Your task to perform on an android device: Open Chrome and go to settings Image 0: 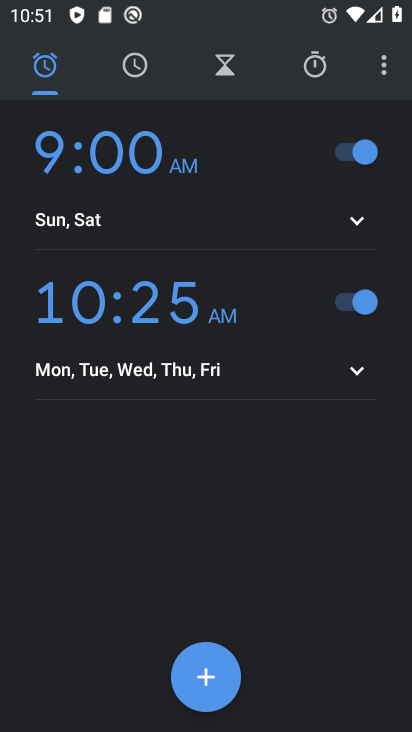
Step 0: press home button
Your task to perform on an android device: Open Chrome and go to settings Image 1: 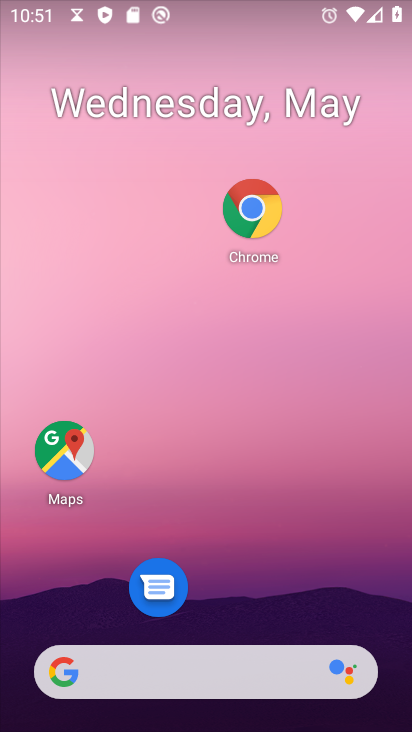
Step 1: click (254, 225)
Your task to perform on an android device: Open Chrome and go to settings Image 2: 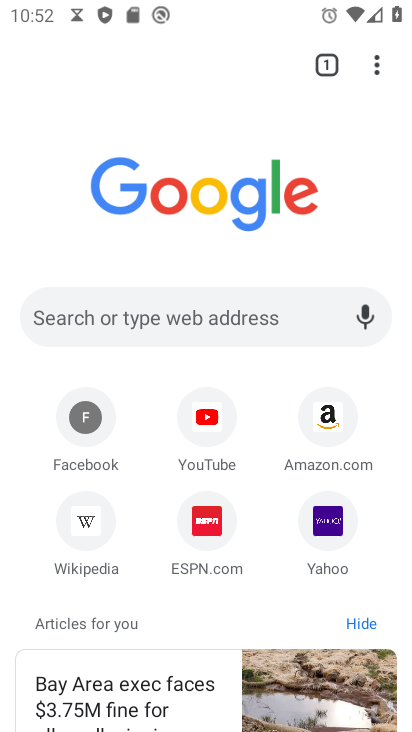
Step 2: click (377, 66)
Your task to perform on an android device: Open Chrome and go to settings Image 3: 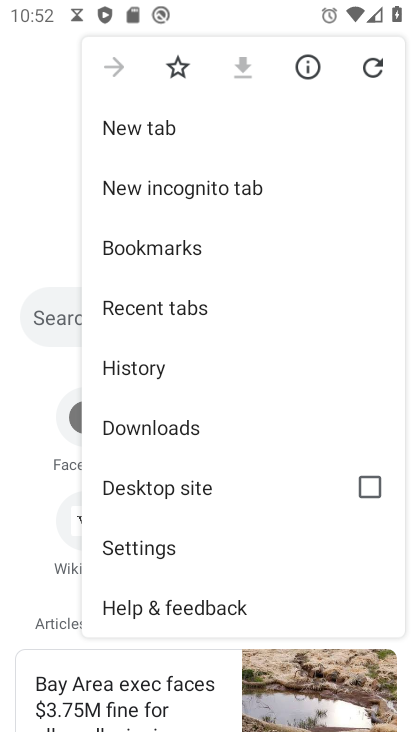
Step 3: click (165, 545)
Your task to perform on an android device: Open Chrome and go to settings Image 4: 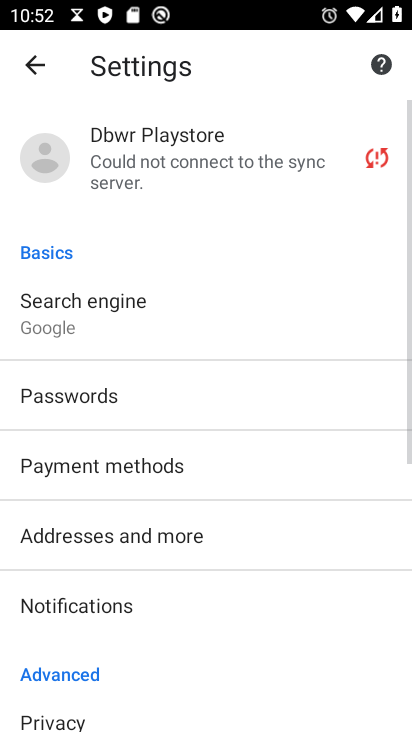
Step 4: task complete